Your task to perform on an android device: change the clock display to digital Image 0: 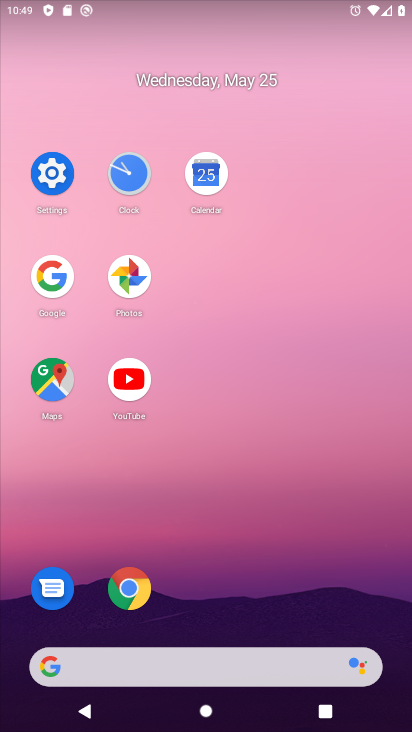
Step 0: click (125, 181)
Your task to perform on an android device: change the clock display to digital Image 1: 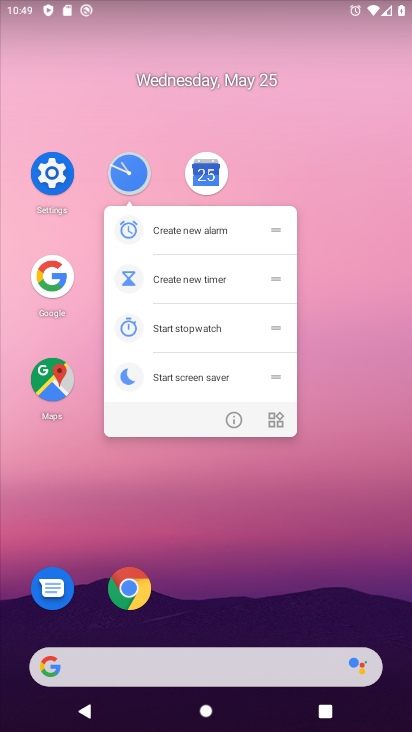
Step 1: click (127, 163)
Your task to perform on an android device: change the clock display to digital Image 2: 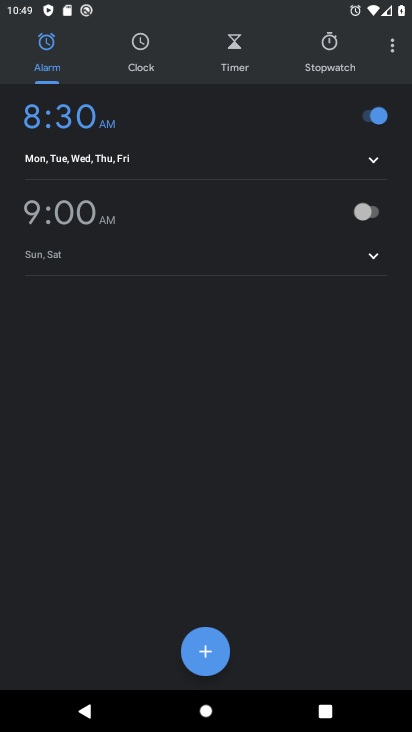
Step 2: click (382, 41)
Your task to perform on an android device: change the clock display to digital Image 3: 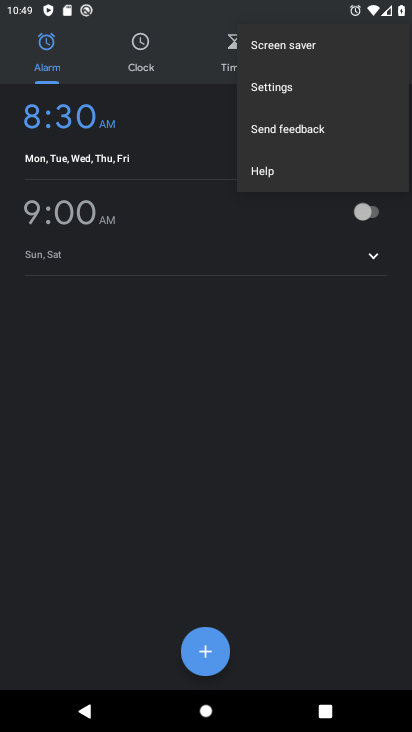
Step 3: click (274, 86)
Your task to perform on an android device: change the clock display to digital Image 4: 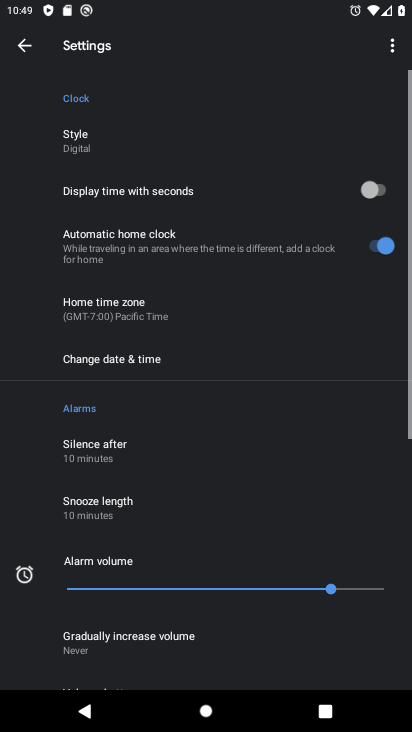
Step 4: click (113, 133)
Your task to perform on an android device: change the clock display to digital Image 5: 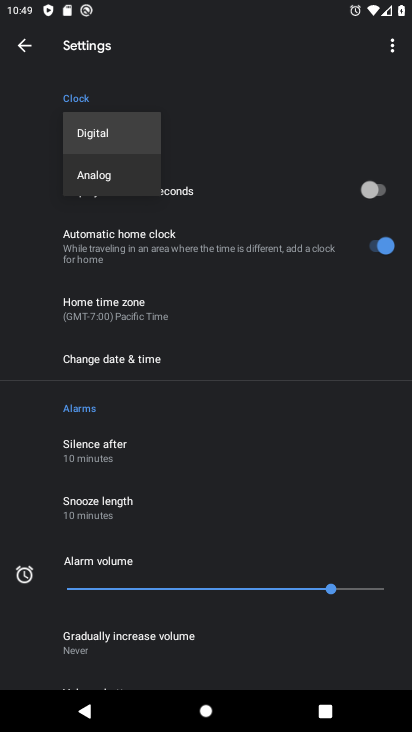
Step 5: task complete